Your task to perform on an android device: snooze an email in the gmail app Image 0: 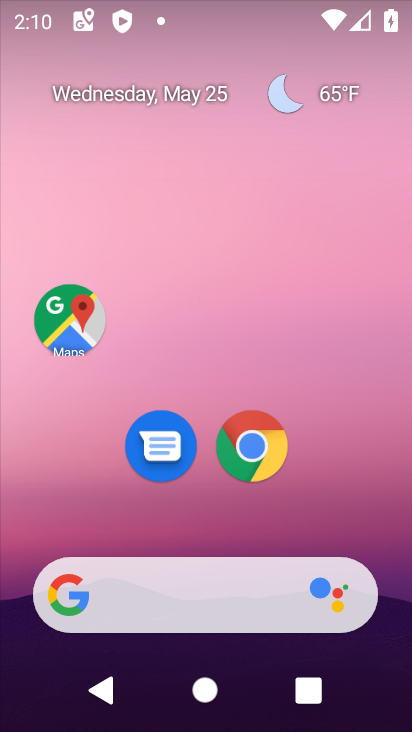
Step 0: drag from (174, 579) to (144, 40)
Your task to perform on an android device: snooze an email in the gmail app Image 1: 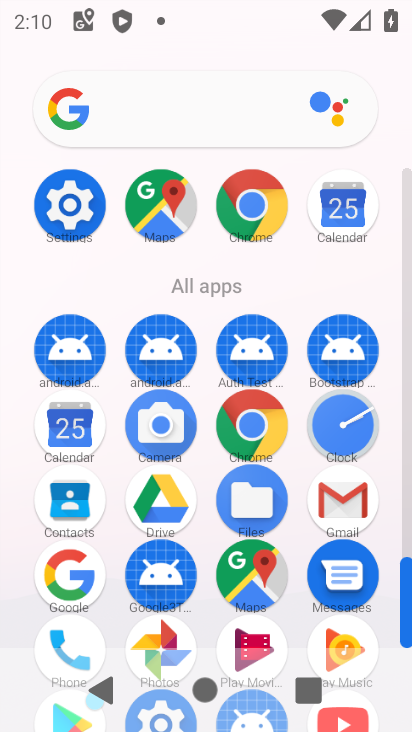
Step 1: click (341, 495)
Your task to perform on an android device: snooze an email in the gmail app Image 2: 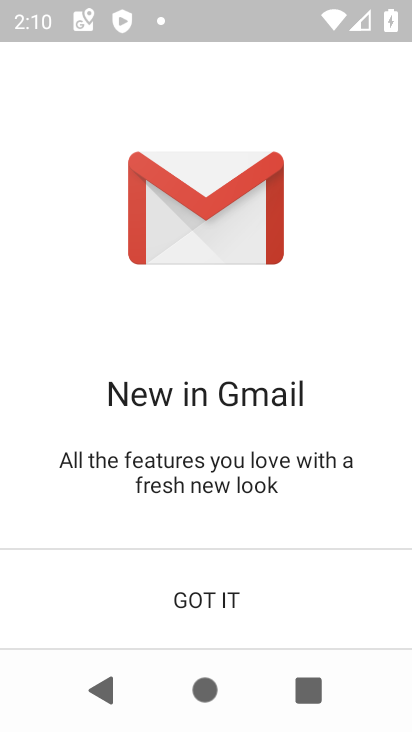
Step 2: click (247, 591)
Your task to perform on an android device: snooze an email in the gmail app Image 3: 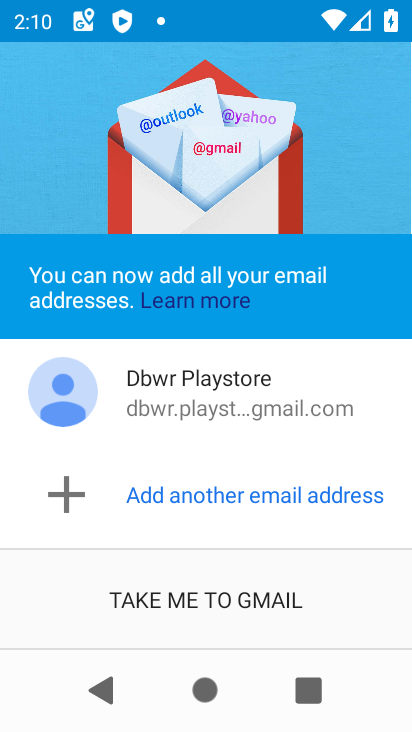
Step 3: click (247, 591)
Your task to perform on an android device: snooze an email in the gmail app Image 4: 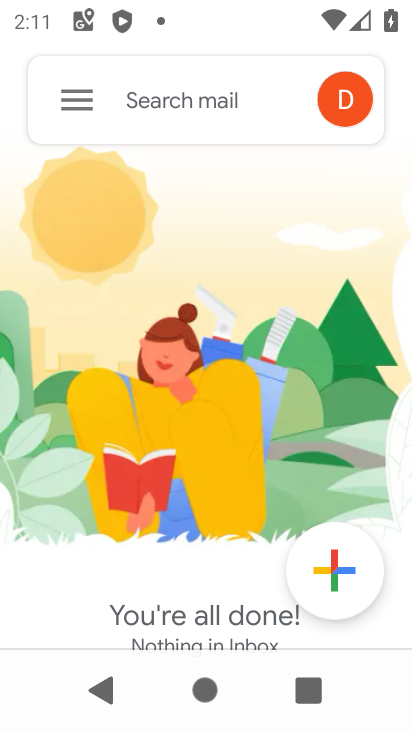
Step 4: click (67, 124)
Your task to perform on an android device: snooze an email in the gmail app Image 5: 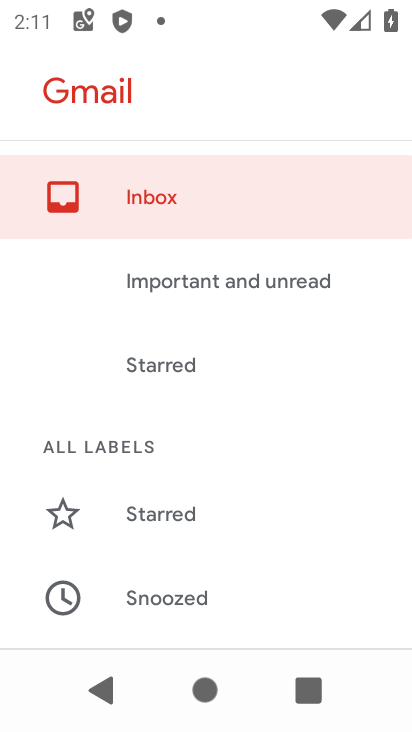
Step 5: drag from (219, 562) to (179, 159)
Your task to perform on an android device: snooze an email in the gmail app Image 6: 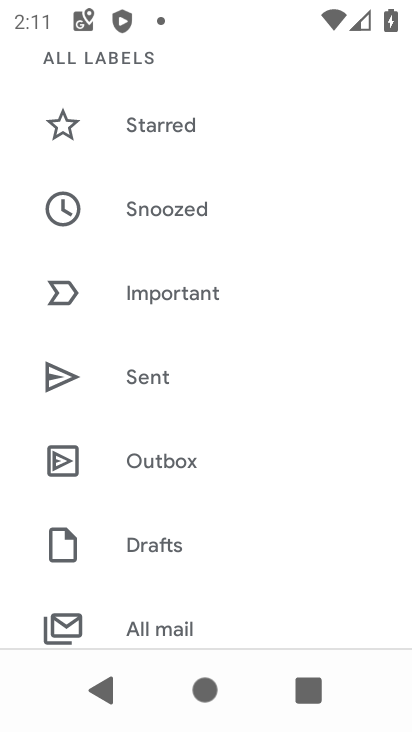
Step 6: click (185, 631)
Your task to perform on an android device: snooze an email in the gmail app Image 7: 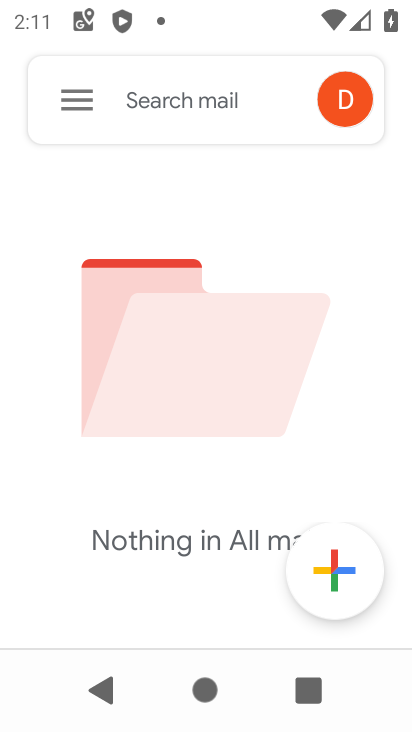
Step 7: task complete